Your task to perform on an android device: turn off location history Image 0: 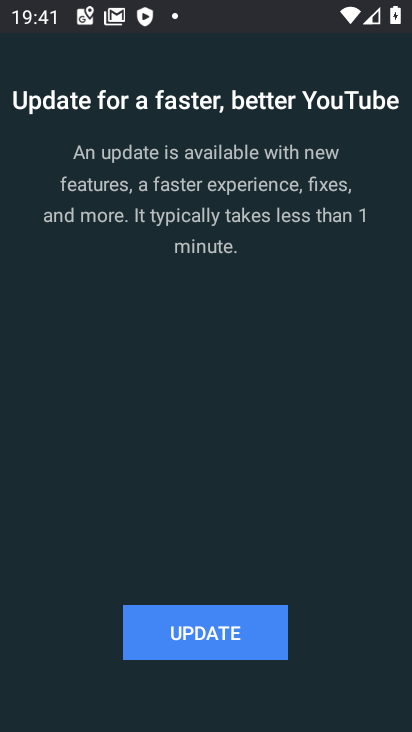
Step 0: press home button
Your task to perform on an android device: turn off location history Image 1: 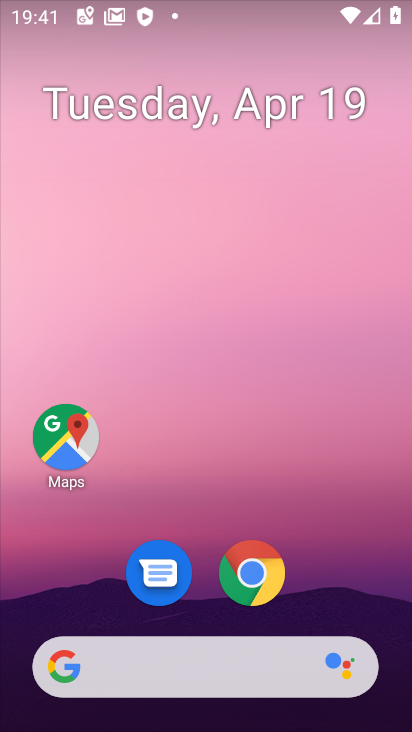
Step 1: drag from (357, 184) to (353, 126)
Your task to perform on an android device: turn off location history Image 2: 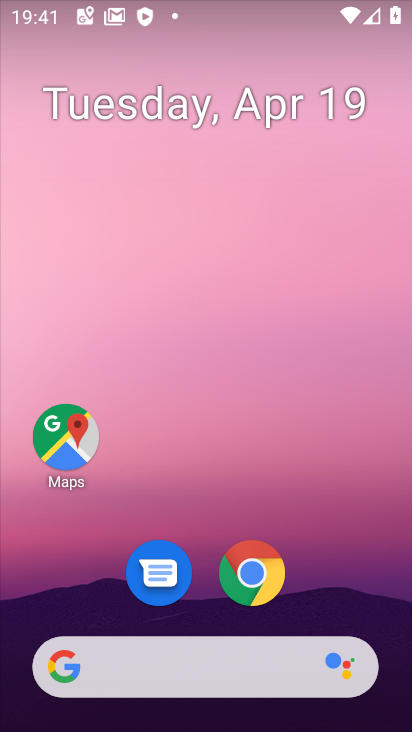
Step 2: drag from (386, 608) to (365, 105)
Your task to perform on an android device: turn off location history Image 3: 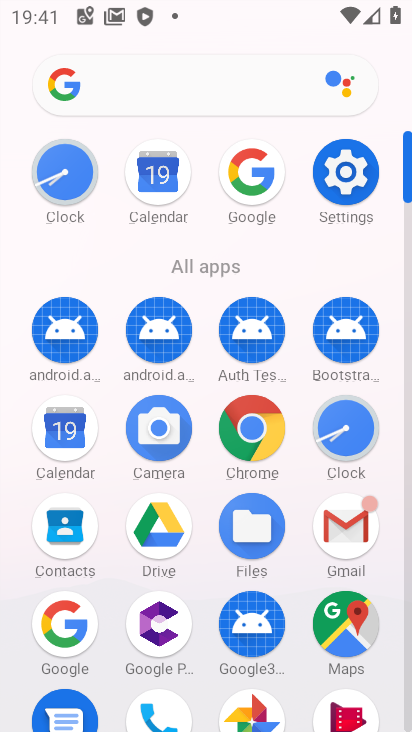
Step 3: click (335, 158)
Your task to perform on an android device: turn off location history Image 4: 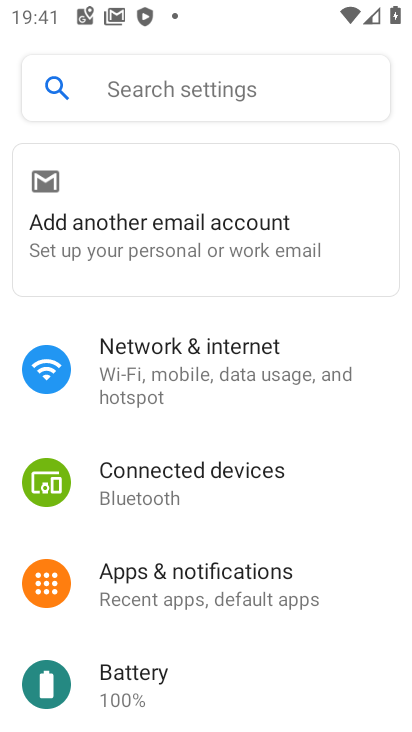
Step 4: drag from (409, 282) to (411, 94)
Your task to perform on an android device: turn off location history Image 5: 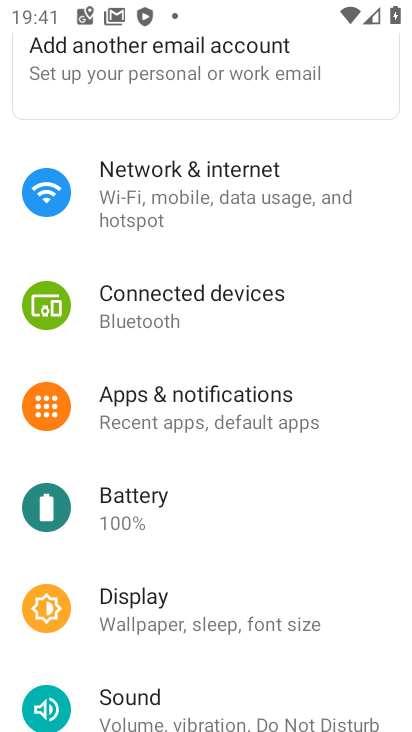
Step 5: drag from (395, 359) to (380, 124)
Your task to perform on an android device: turn off location history Image 6: 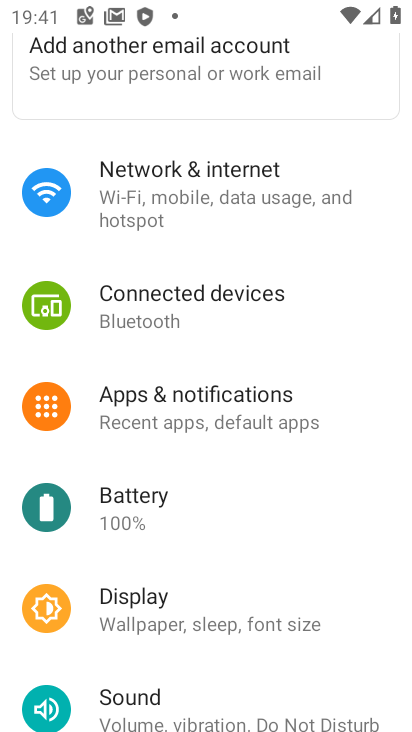
Step 6: drag from (406, 296) to (403, 102)
Your task to perform on an android device: turn off location history Image 7: 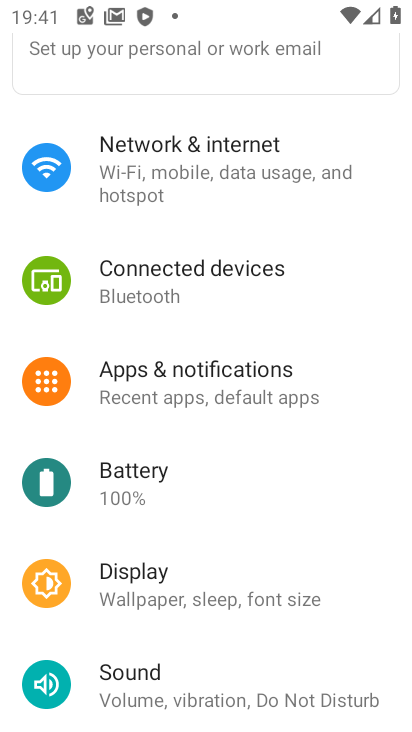
Step 7: drag from (400, 504) to (385, 104)
Your task to perform on an android device: turn off location history Image 8: 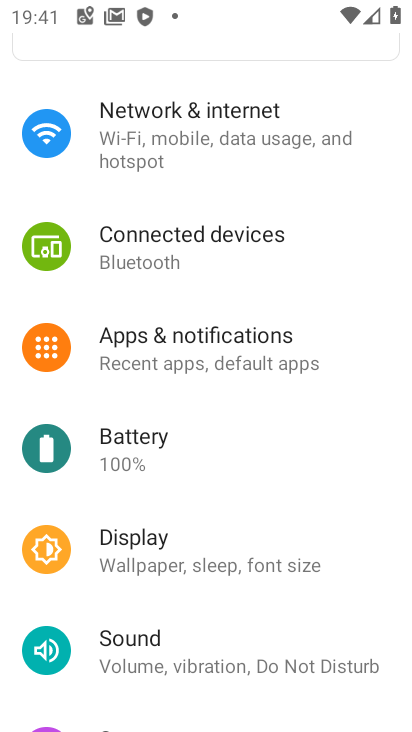
Step 8: drag from (402, 594) to (408, 239)
Your task to perform on an android device: turn off location history Image 9: 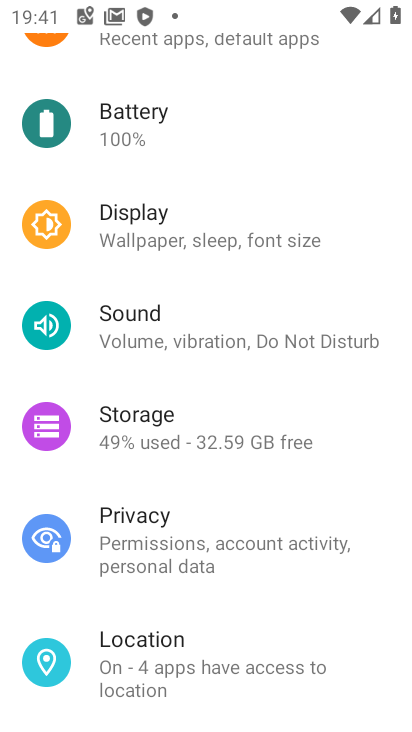
Step 9: drag from (391, 624) to (377, 217)
Your task to perform on an android device: turn off location history Image 10: 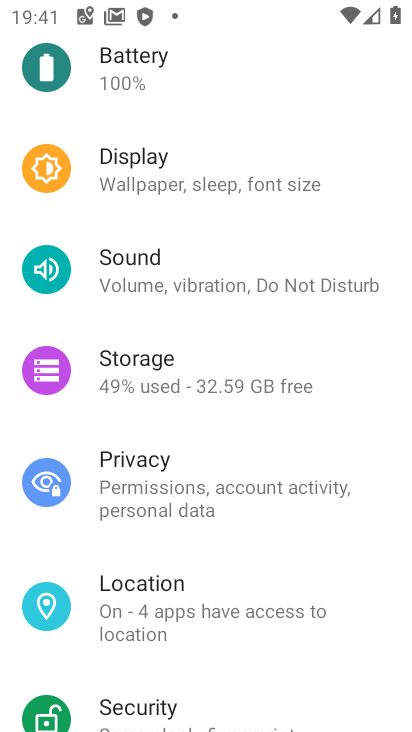
Step 10: click (114, 602)
Your task to perform on an android device: turn off location history Image 11: 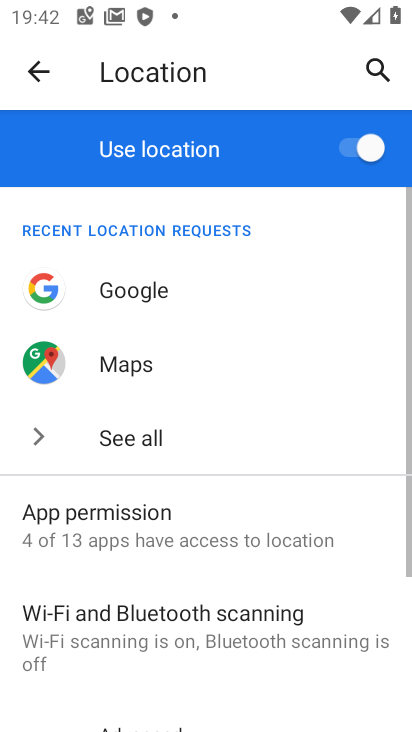
Step 11: drag from (359, 584) to (350, 242)
Your task to perform on an android device: turn off location history Image 12: 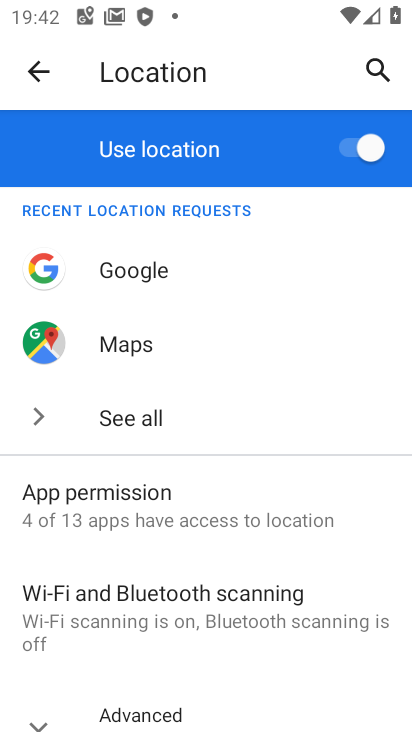
Step 12: drag from (369, 505) to (356, 249)
Your task to perform on an android device: turn off location history Image 13: 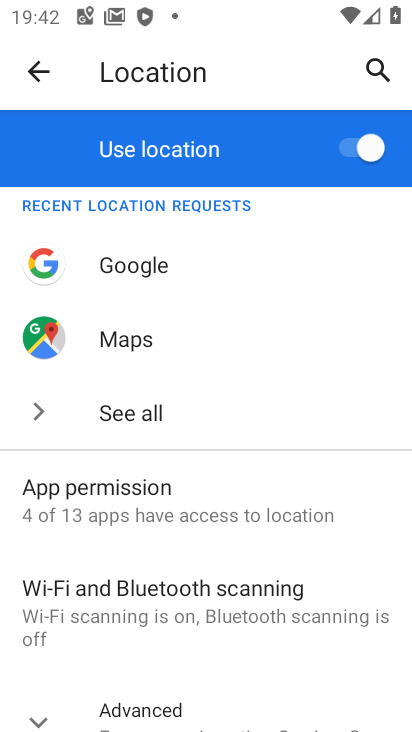
Step 13: drag from (372, 560) to (376, 206)
Your task to perform on an android device: turn off location history Image 14: 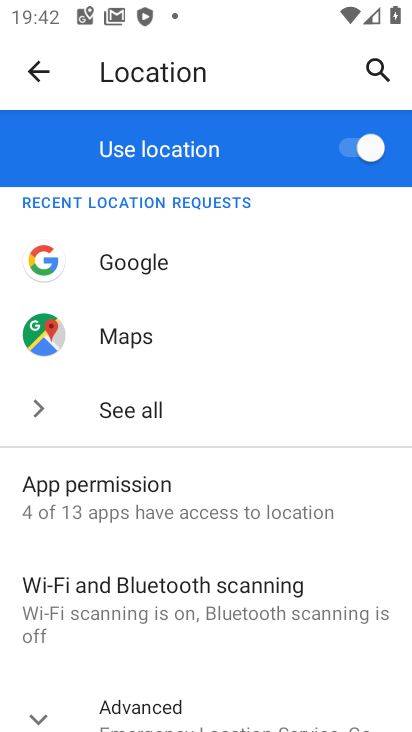
Step 14: drag from (365, 681) to (370, 300)
Your task to perform on an android device: turn off location history Image 15: 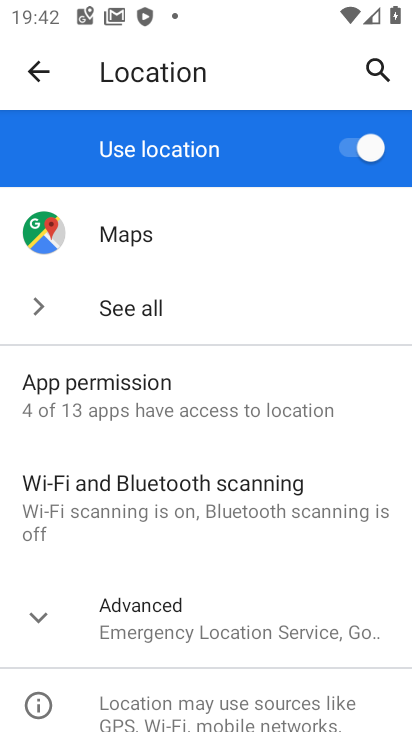
Step 15: click (43, 616)
Your task to perform on an android device: turn off location history Image 16: 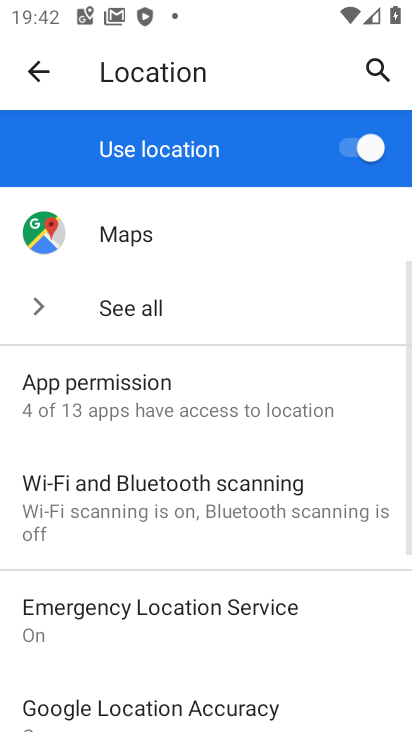
Step 16: drag from (329, 636) to (362, 255)
Your task to perform on an android device: turn off location history Image 17: 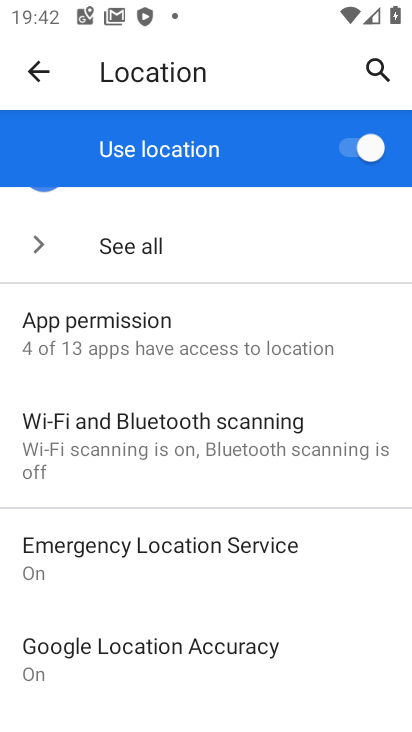
Step 17: drag from (324, 597) to (338, 244)
Your task to perform on an android device: turn off location history Image 18: 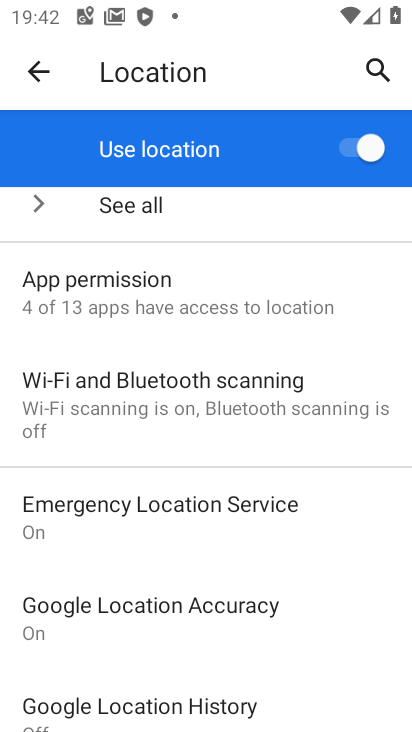
Step 18: drag from (387, 650) to (394, 325)
Your task to perform on an android device: turn off location history Image 19: 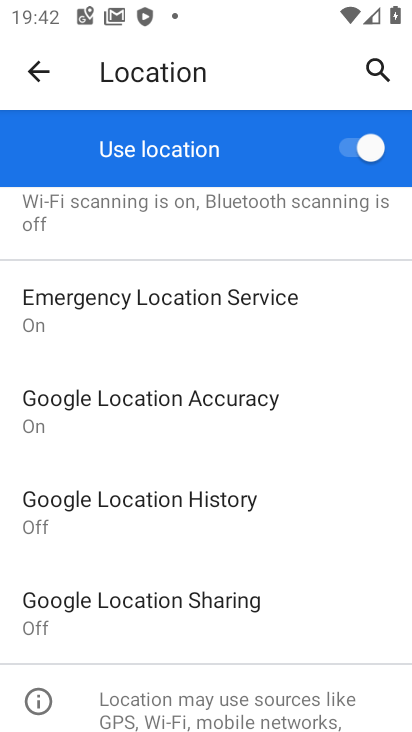
Step 19: click (109, 504)
Your task to perform on an android device: turn off location history Image 20: 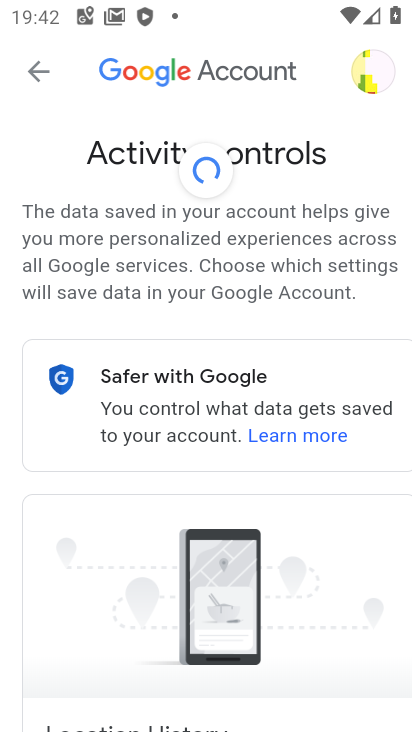
Step 20: task complete